Your task to perform on an android device: Set the phone to "Do not disturb". Image 0: 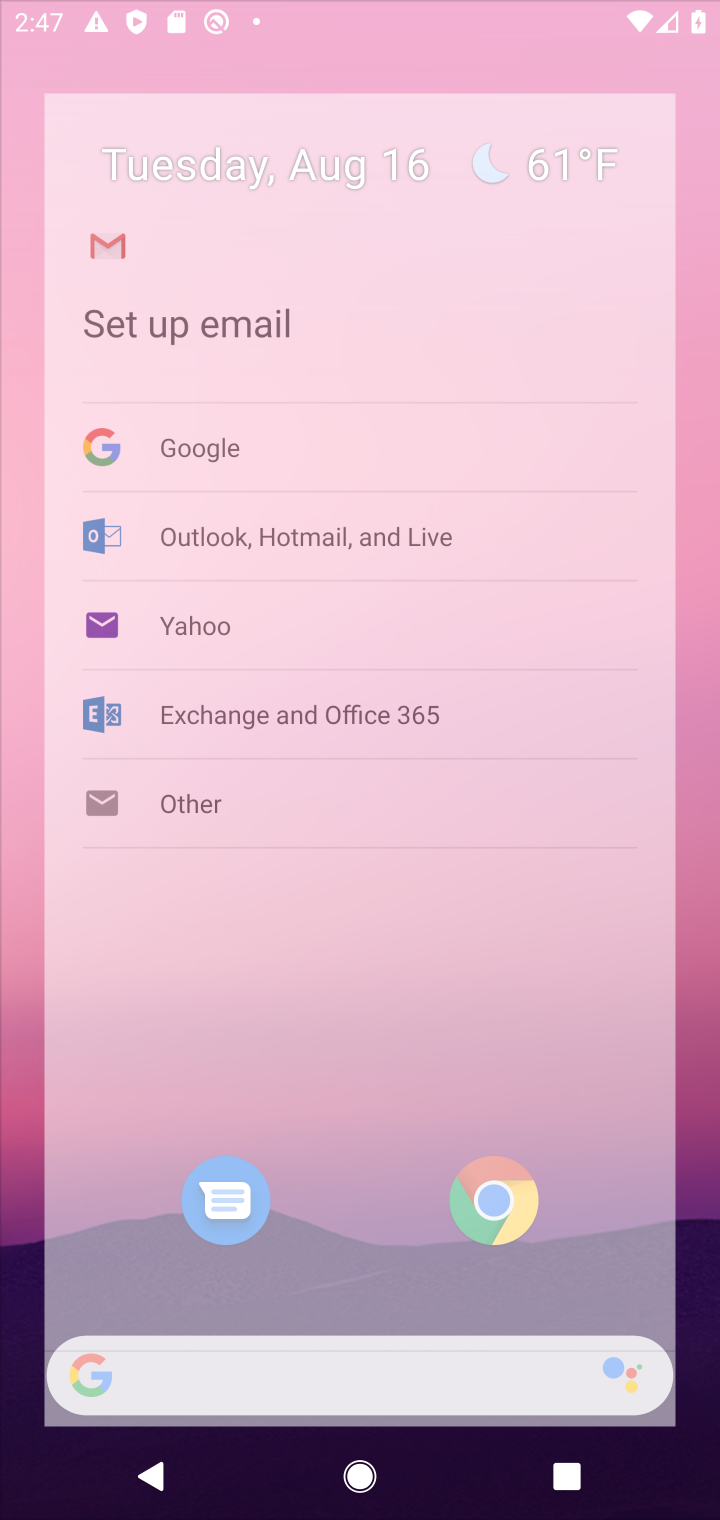
Step 0: click (586, 1232)
Your task to perform on an android device: Set the phone to "Do not disturb". Image 1: 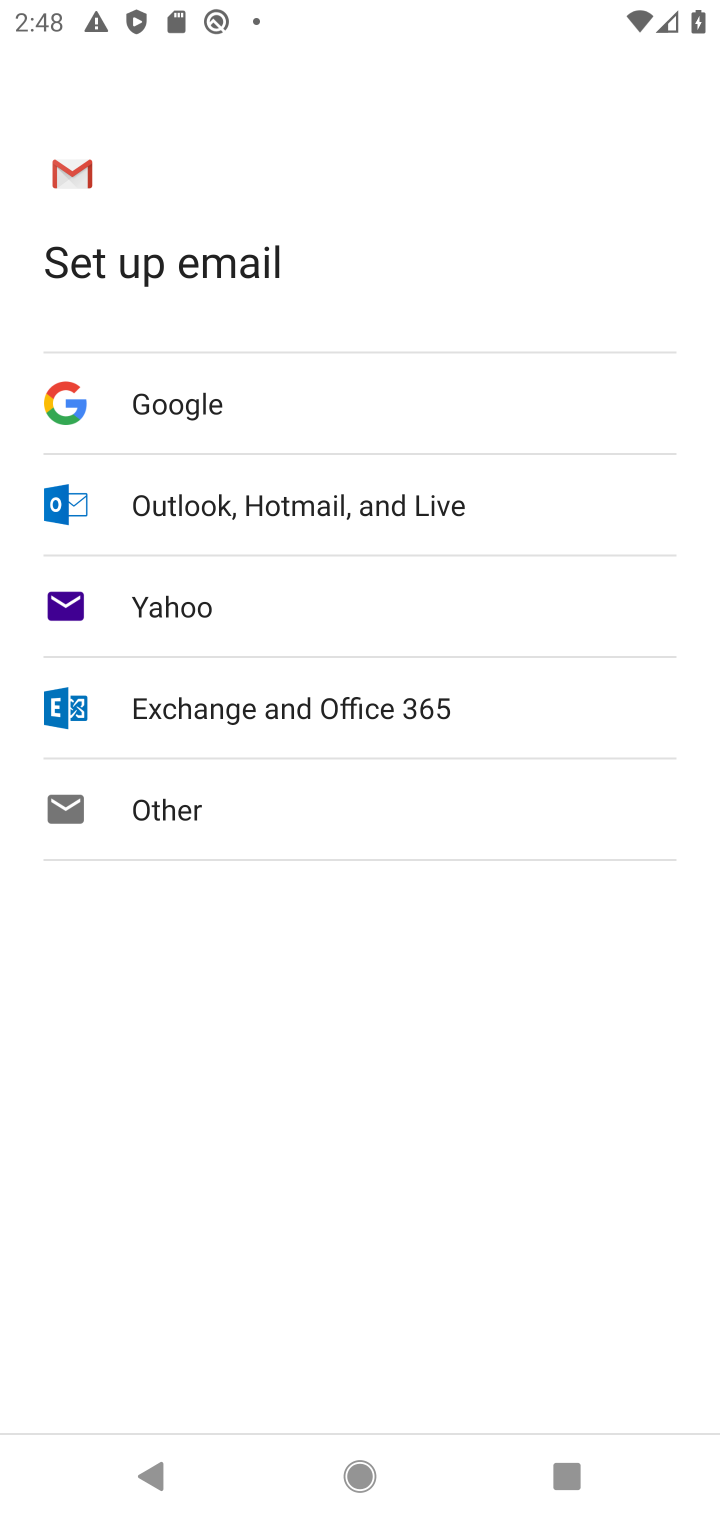
Step 1: task complete